Your task to perform on an android device: toggle translation in the chrome app Image 0: 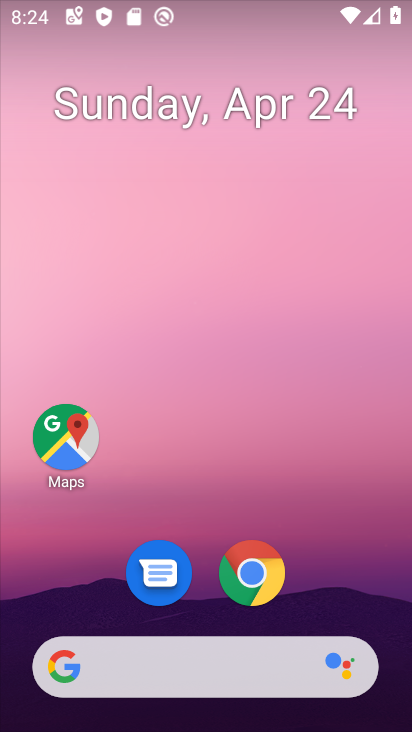
Step 0: click (262, 567)
Your task to perform on an android device: toggle translation in the chrome app Image 1: 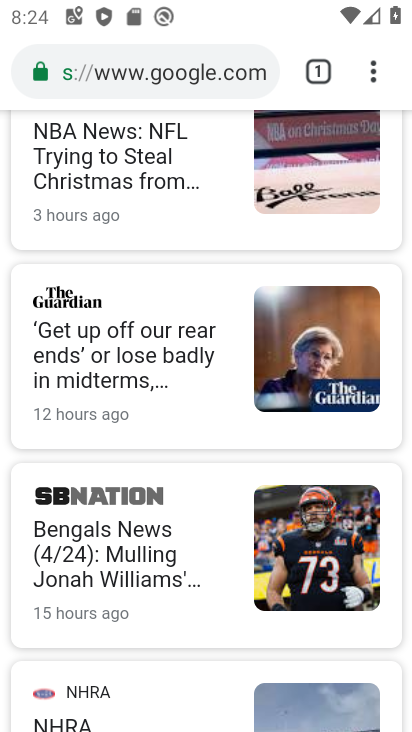
Step 1: drag from (370, 76) to (180, 563)
Your task to perform on an android device: toggle translation in the chrome app Image 2: 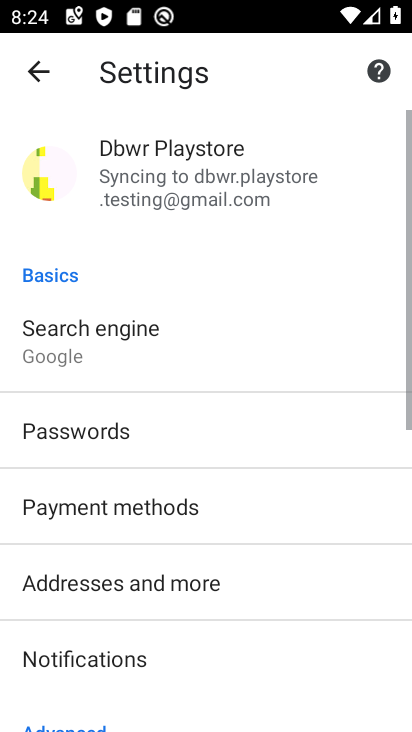
Step 2: drag from (310, 631) to (310, 233)
Your task to perform on an android device: toggle translation in the chrome app Image 3: 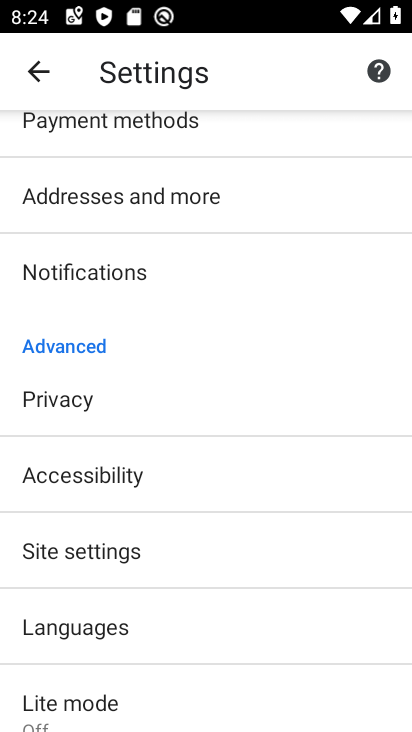
Step 3: click (92, 632)
Your task to perform on an android device: toggle translation in the chrome app Image 4: 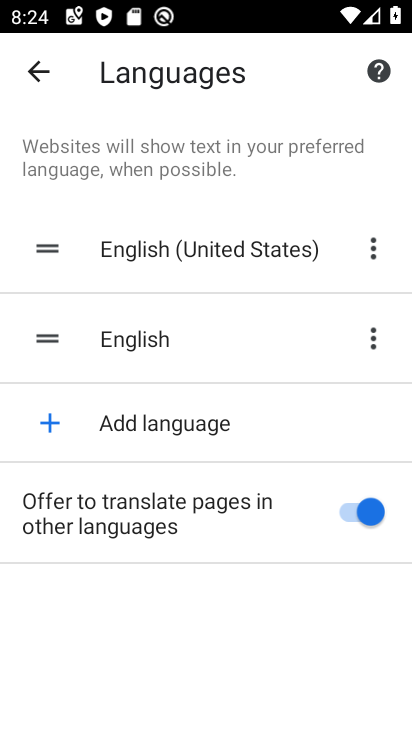
Step 4: click (358, 514)
Your task to perform on an android device: toggle translation in the chrome app Image 5: 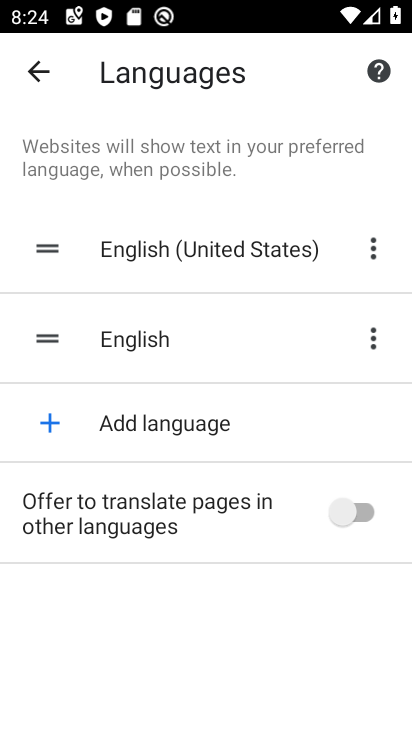
Step 5: task complete